Your task to perform on an android device: Open Google Chrome and open the bookmarks view Image 0: 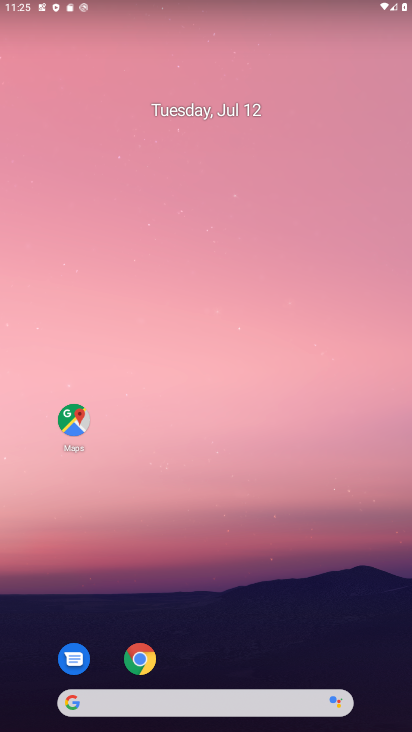
Step 0: drag from (275, 649) to (278, 14)
Your task to perform on an android device: Open Google Chrome and open the bookmarks view Image 1: 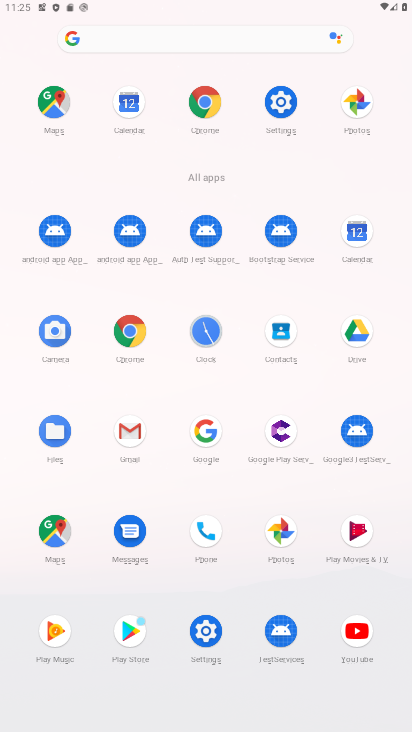
Step 1: click (134, 323)
Your task to perform on an android device: Open Google Chrome and open the bookmarks view Image 2: 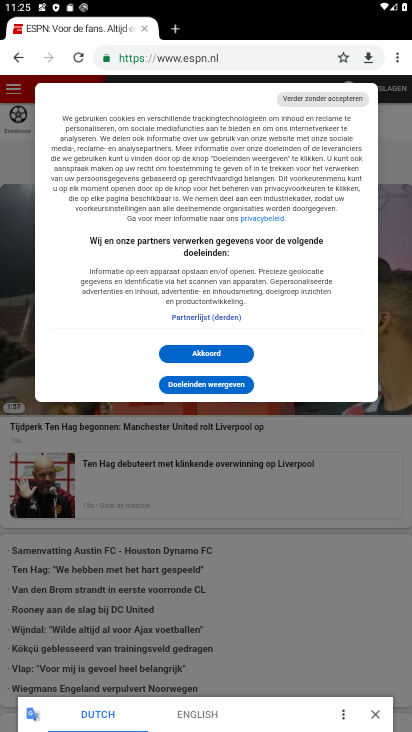
Step 2: task complete